Your task to perform on an android device: Clear all items from cart on walmart. Add lg ultragear to the cart on walmart Image 0: 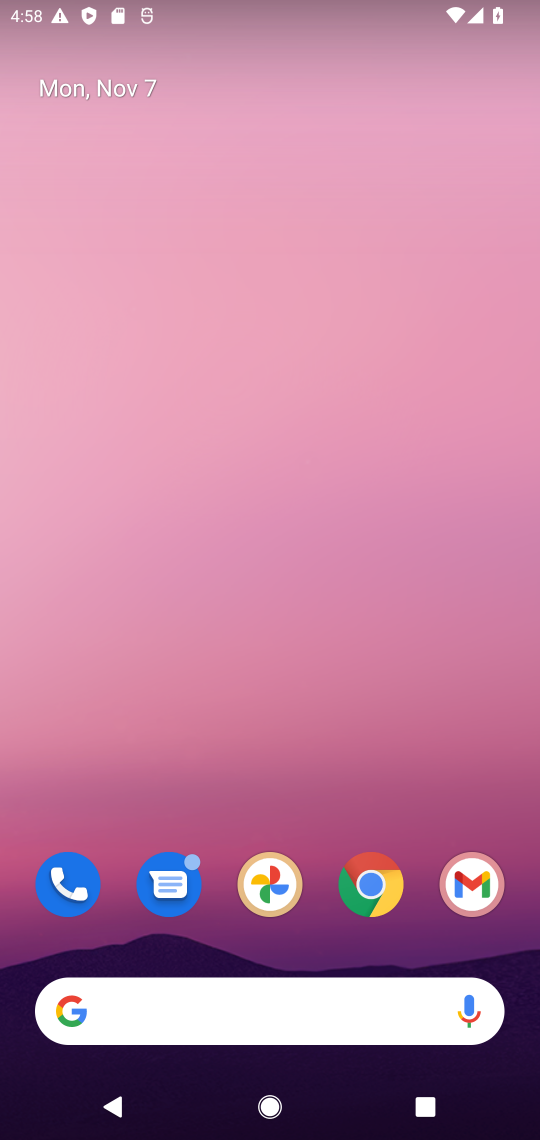
Step 0: drag from (325, 936) to (306, 24)
Your task to perform on an android device: Clear all items from cart on walmart. Add lg ultragear to the cart on walmart Image 1: 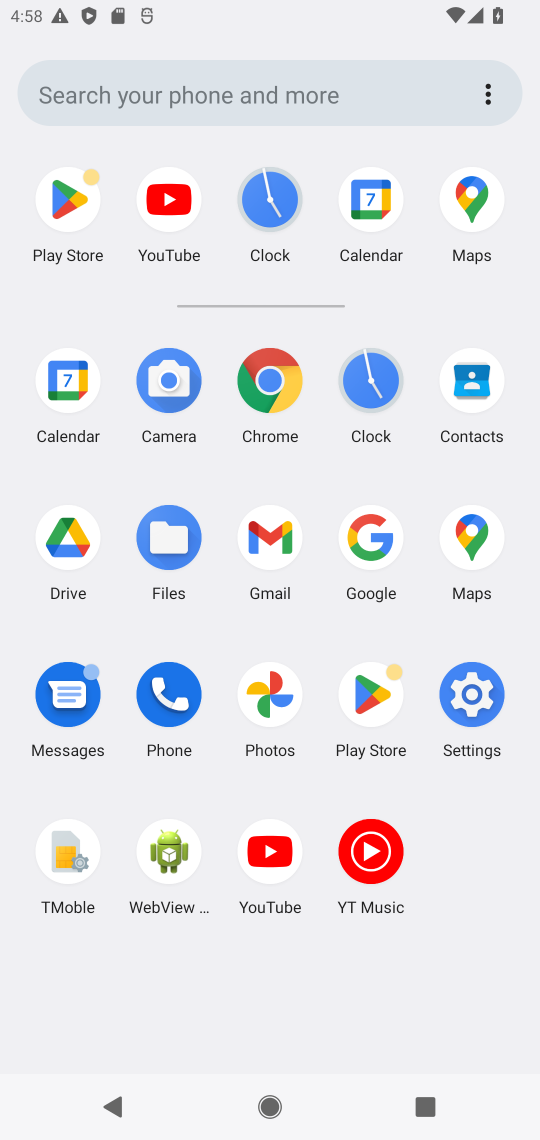
Step 1: click (259, 367)
Your task to perform on an android device: Clear all items from cart on walmart. Add lg ultragear to the cart on walmart Image 2: 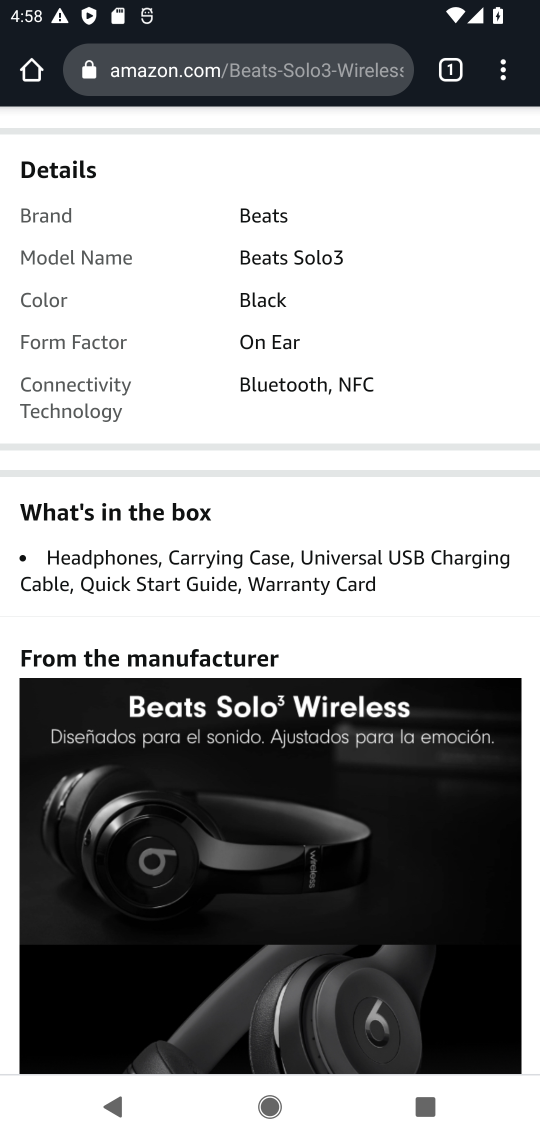
Step 2: click (259, 65)
Your task to perform on an android device: Clear all items from cart on walmart. Add lg ultragear to the cart on walmart Image 3: 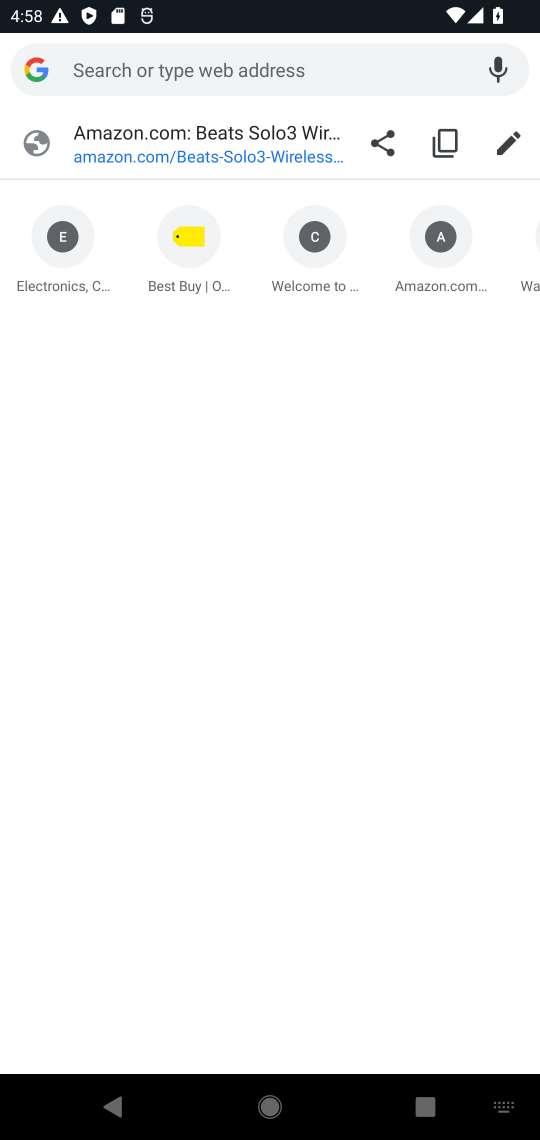
Step 3: type "walmart.com"
Your task to perform on an android device: Clear all items from cart on walmart. Add lg ultragear to the cart on walmart Image 4: 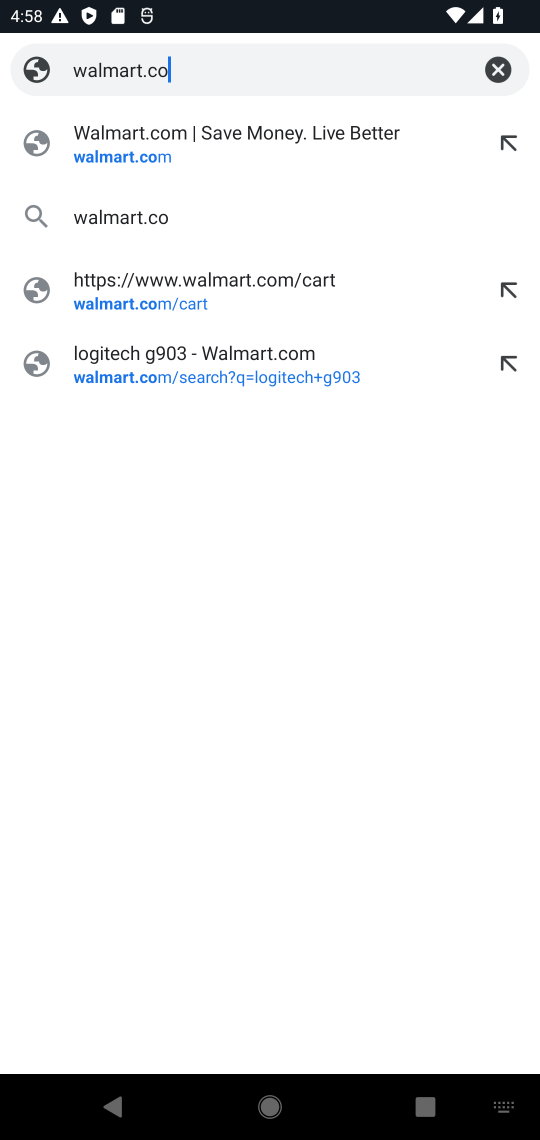
Step 4: press enter
Your task to perform on an android device: Clear all items from cart on walmart. Add lg ultragear to the cart on walmart Image 5: 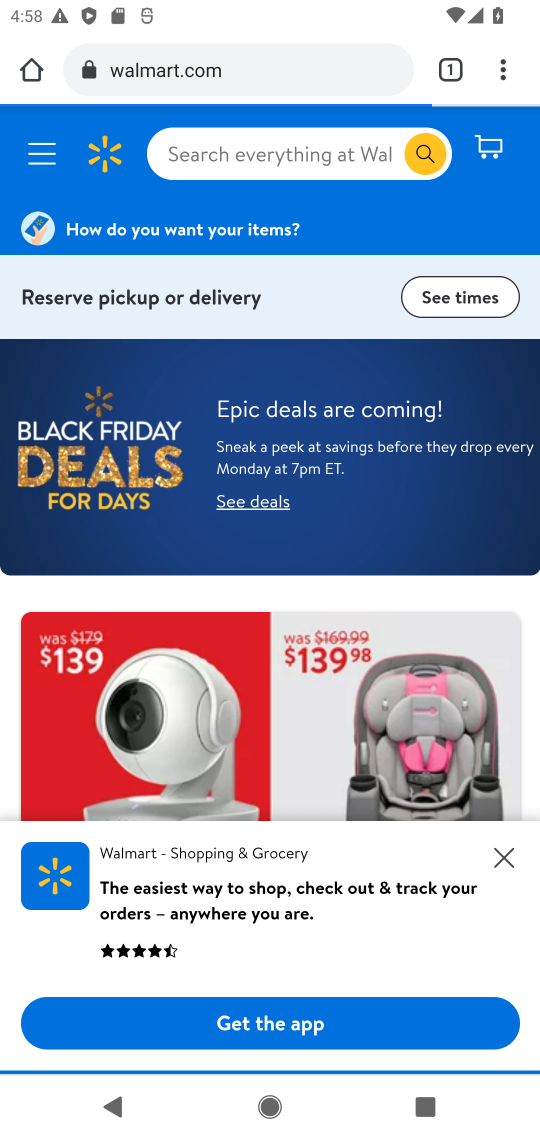
Step 5: click (494, 153)
Your task to perform on an android device: Clear all items from cart on walmart. Add lg ultragear to the cart on walmart Image 6: 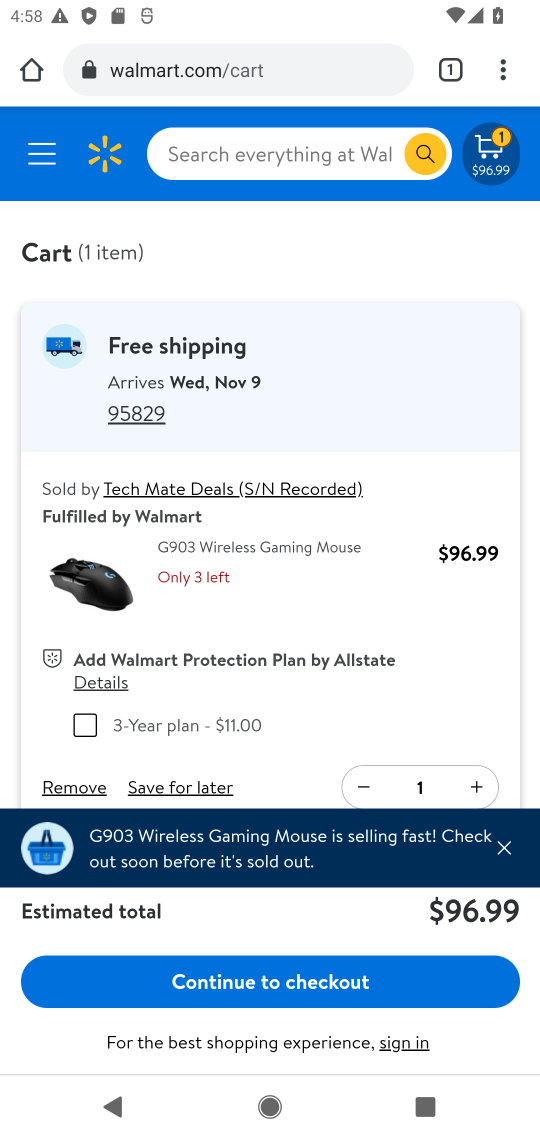
Step 6: click (65, 794)
Your task to perform on an android device: Clear all items from cart on walmart. Add lg ultragear to the cart on walmart Image 7: 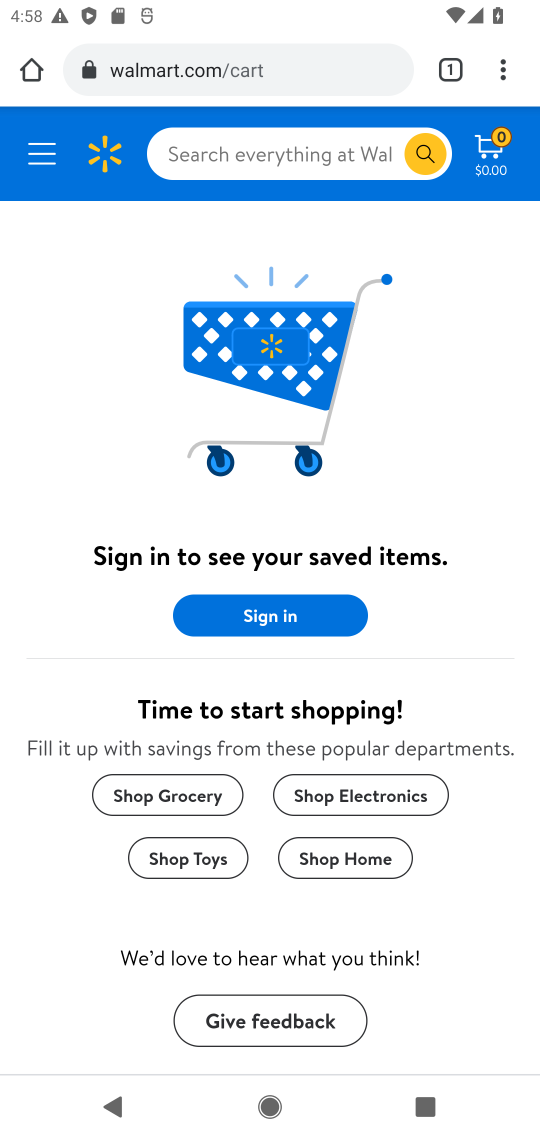
Step 7: click (310, 162)
Your task to perform on an android device: Clear all items from cart on walmart. Add lg ultragear to the cart on walmart Image 8: 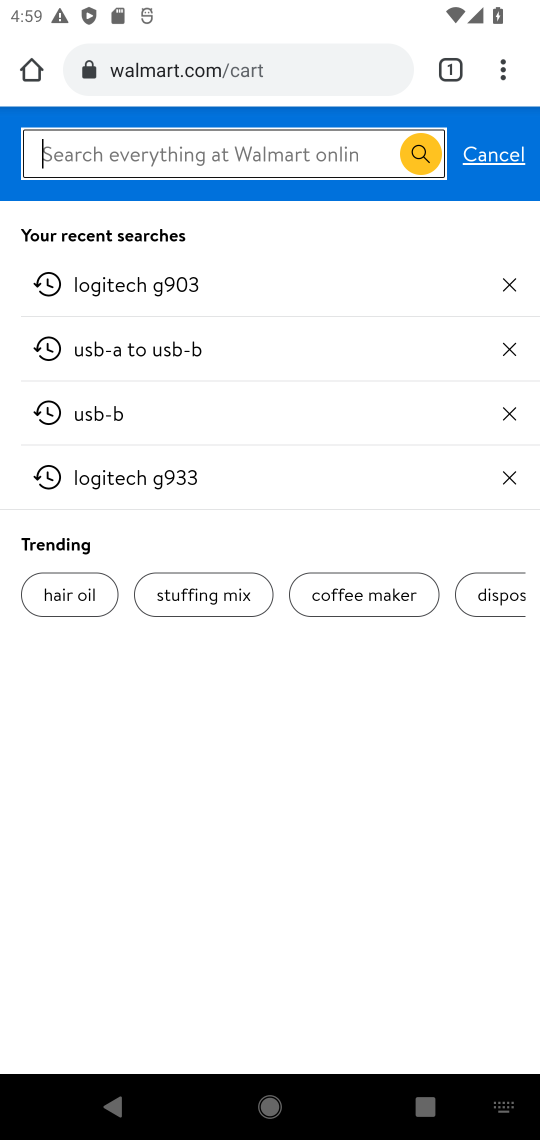
Step 8: type "lg ultragear"
Your task to perform on an android device: Clear all items from cart on walmart. Add lg ultragear to the cart on walmart Image 9: 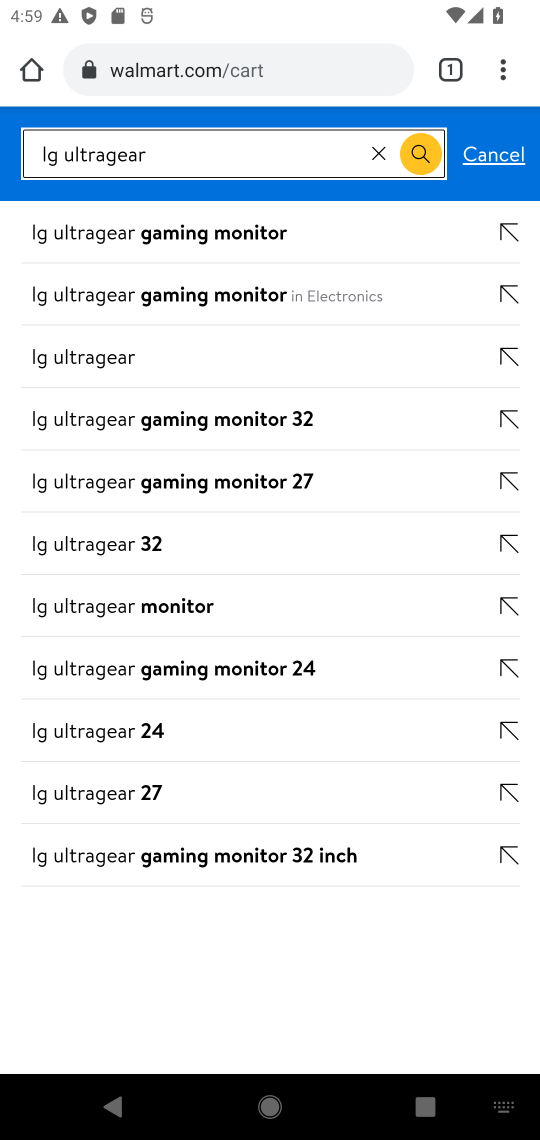
Step 9: press enter
Your task to perform on an android device: Clear all items from cart on walmart. Add lg ultragear to the cart on walmart Image 10: 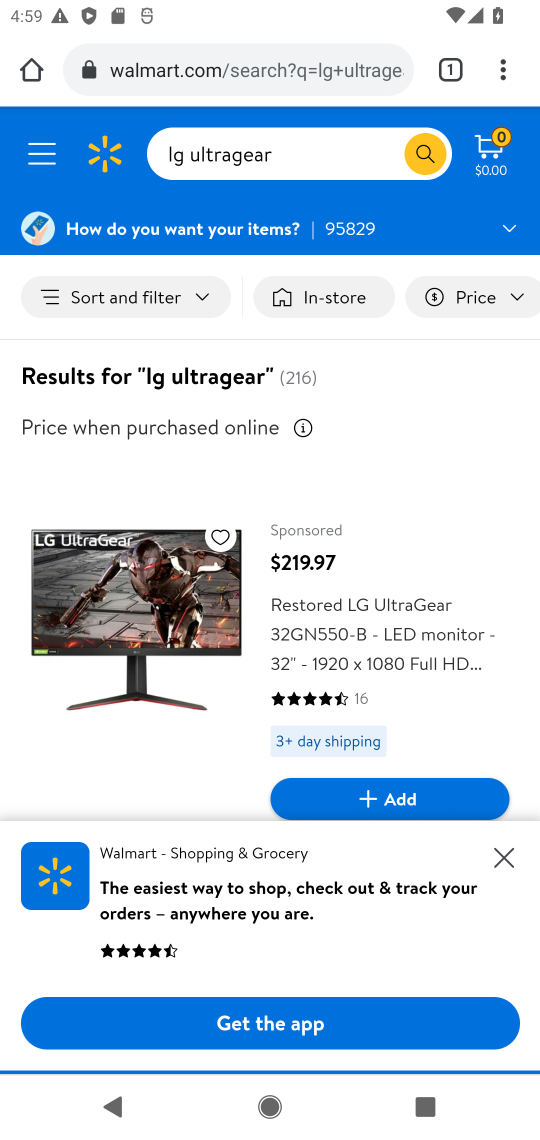
Step 10: drag from (316, 745) to (306, 174)
Your task to perform on an android device: Clear all items from cart on walmart. Add lg ultragear to the cart on walmart Image 11: 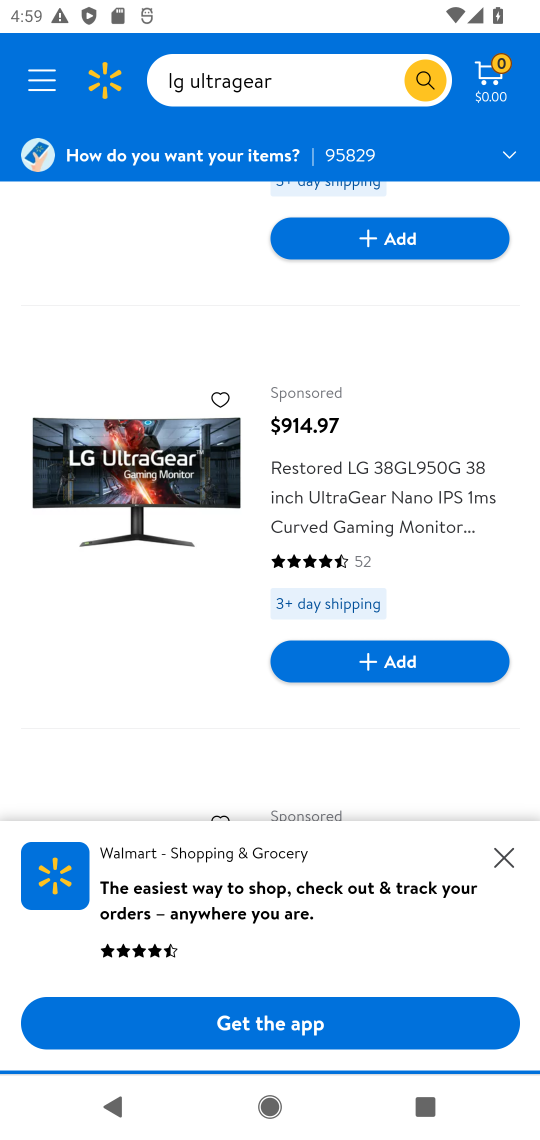
Step 11: drag from (404, 738) to (310, 128)
Your task to perform on an android device: Clear all items from cart on walmart. Add lg ultragear to the cart on walmart Image 12: 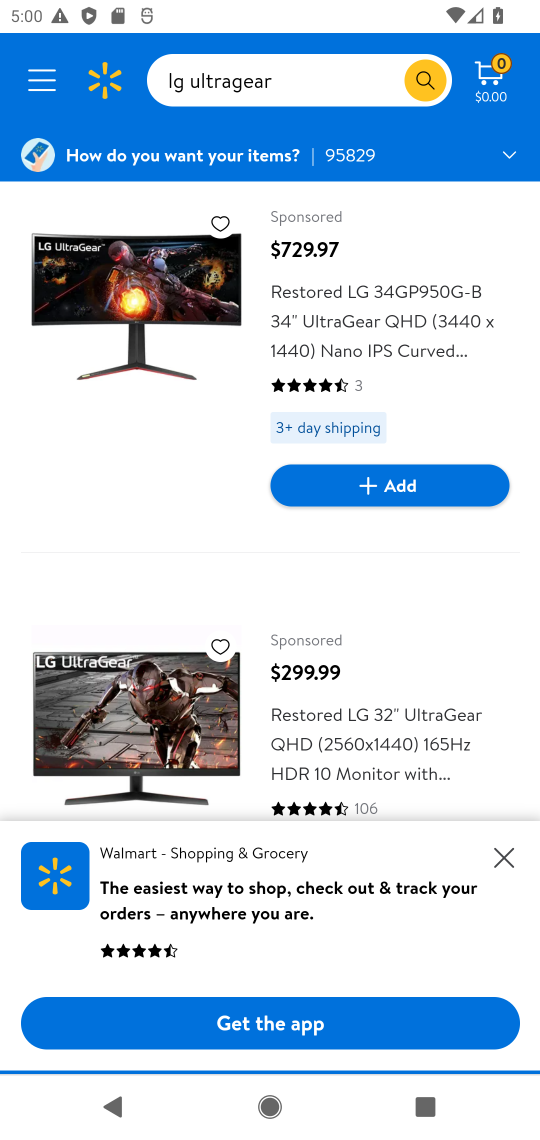
Step 12: drag from (356, 791) to (381, 175)
Your task to perform on an android device: Clear all items from cart on walmart. Add lg ultragear to the cart on walmart Image 13: 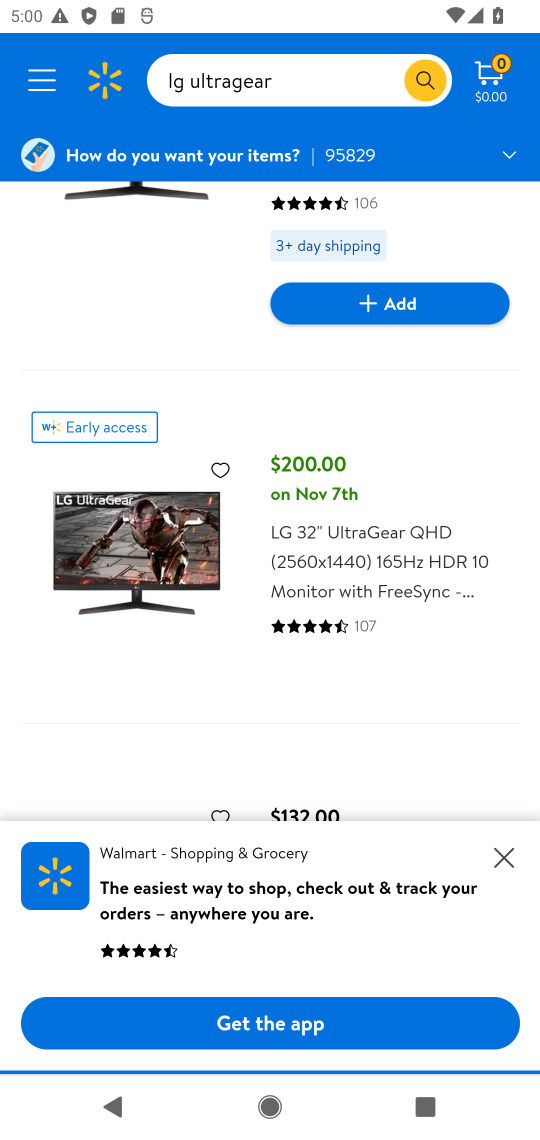
Step 13: drag from (360, 435) to (440, 366)
Your task to perform on an android device: Clear all items from cart on walmart. Add lg ultragear to the cart on walmart Image 14: 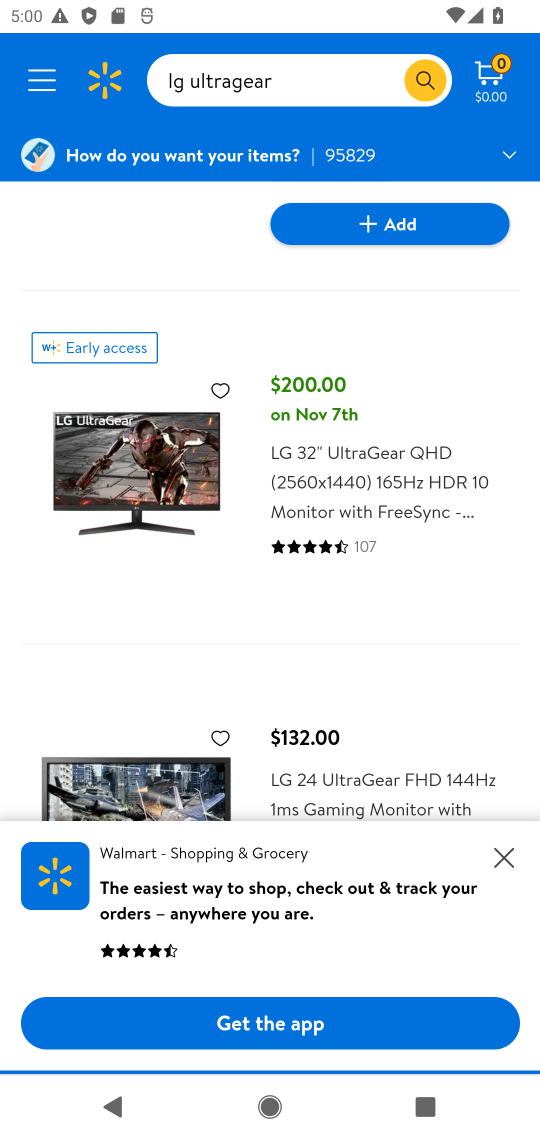
Step 14: click (346, 464)
Your task to perform on an android device: Clear all items from cart on walmart. Add lg ultragear to the cart on walmart Image 15: 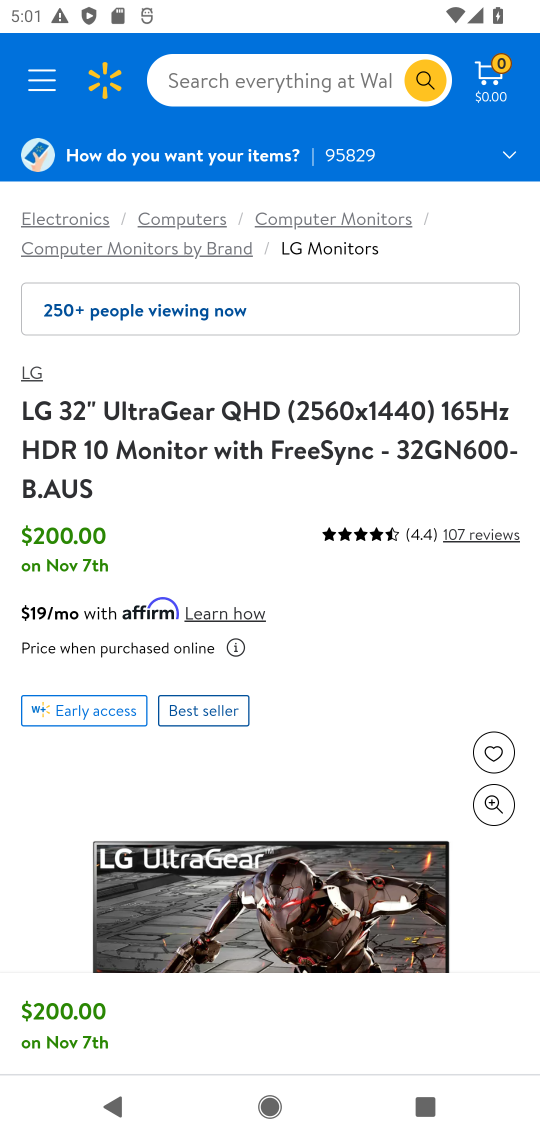
Step 15: task complete